Your task to perform on an android device: open app "Gmail" (install if not already installed) Image 0: 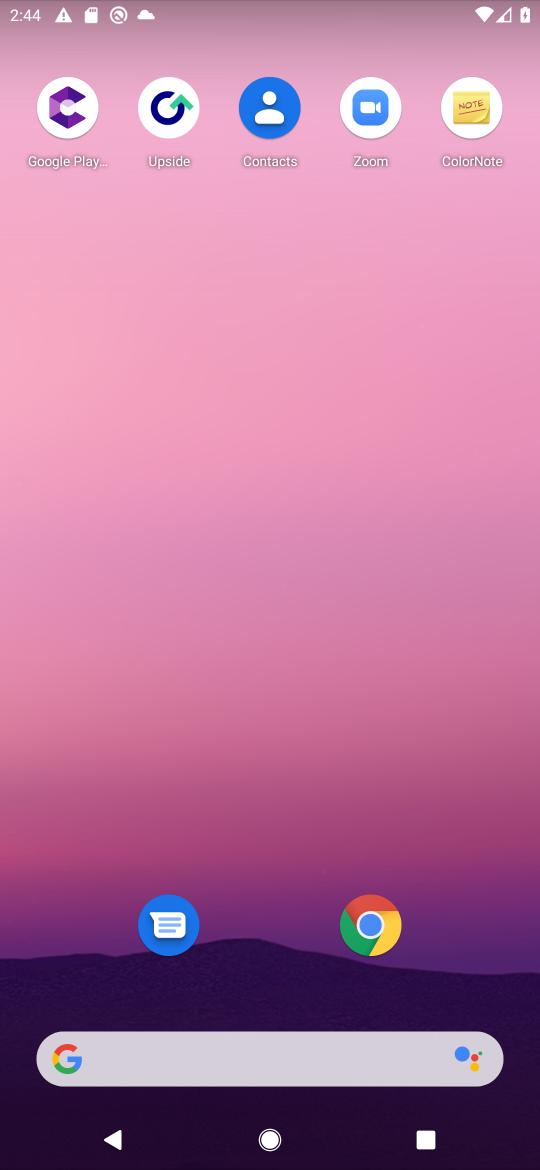
Step 0: press home button
Your task to perform on an android device: open app "Gmail" (install if not already installed) Image 1: 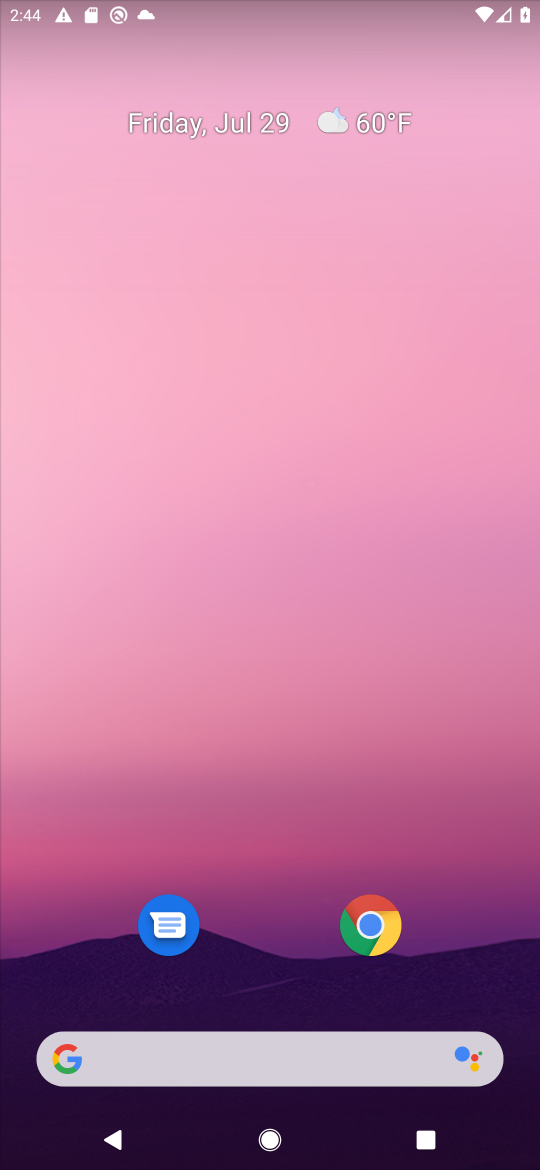
Step 1: drag from (276, 941) to (272, 77)
Your task to perform on an android device: open app "Gmail" (install if not already installed) Image 2: 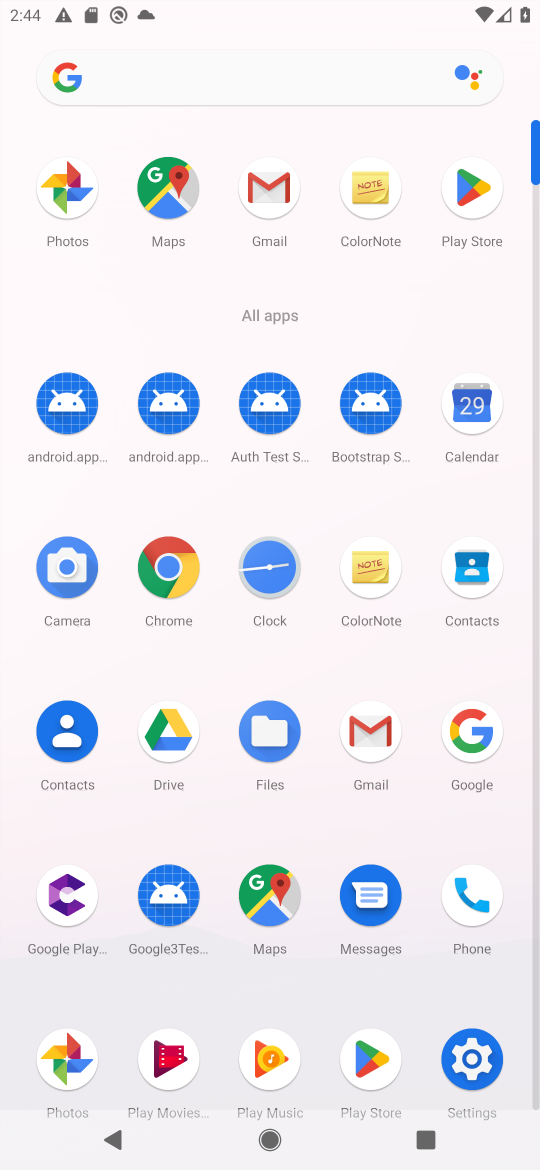
Step 2: click (359, 731)
Your task to perform on an android device: open app "Gmail" (install if not already installed) Image 3: 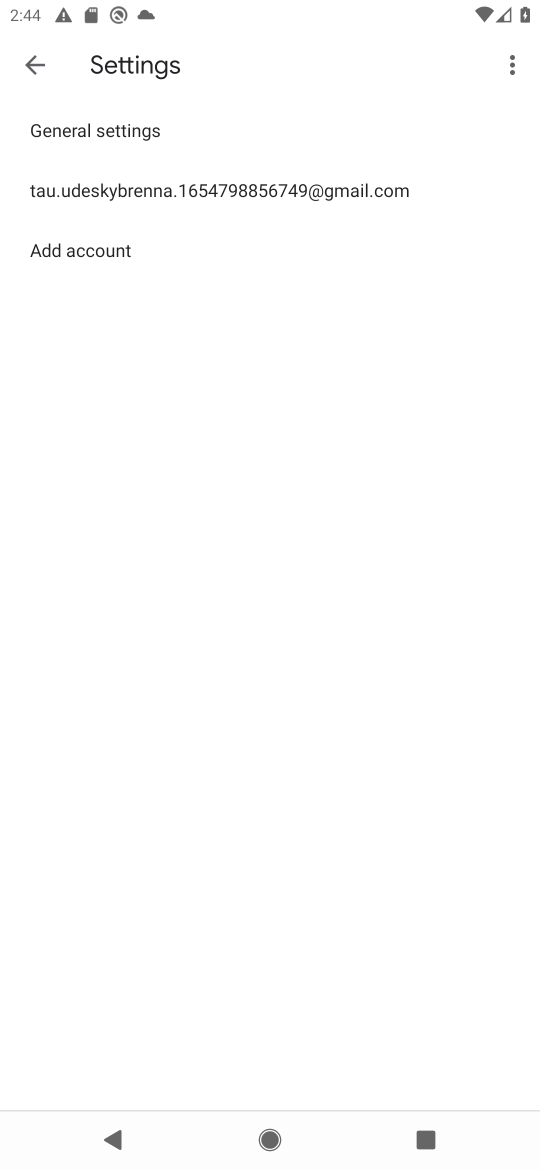
Step 3: task complete